Your task to perform on an android device: turn on the 24-hour format for clock Image 0: 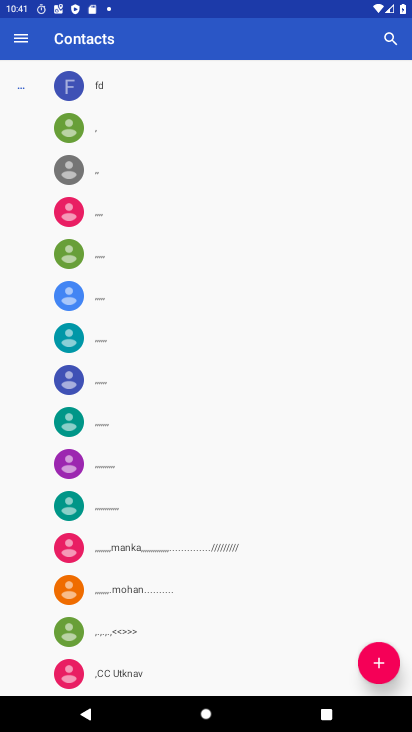
Step 0: press home button
Your task to perform on an android device: turn on the 24-hour format for clock Image 1: 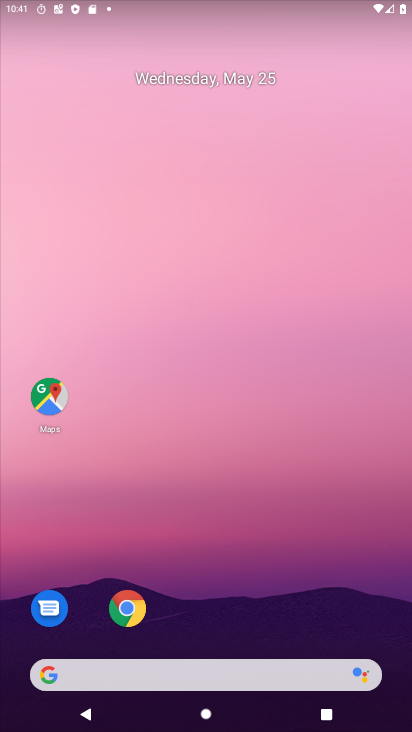
Step 1: drag from (231, 635) to (218, 31)
Your task to perform on an android device: turn on the 24-hour format for clock Image 2: 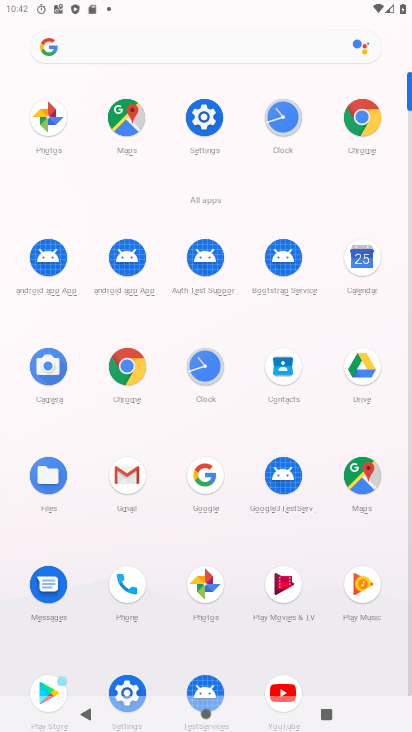
Step 2: click (279, 109)
Your task to perform on an android device: turn on the 24-hour format for clock Image 3: 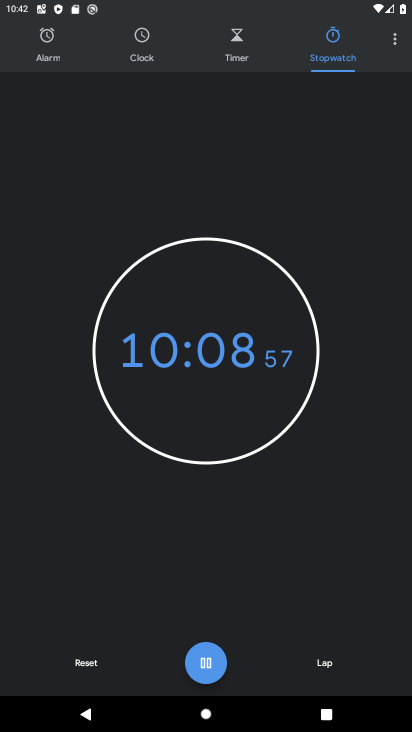
Step 3: click (392, 58)
Your task to perform on an android device: turn on the 24-hour format for clock Image 4: 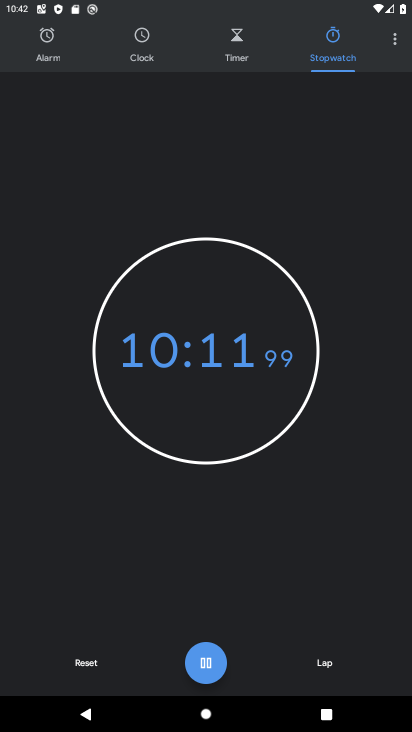
Step 4: click (400, 49)
Your task to perform on an android device: turn on the 24-hour format for clock Image 5: 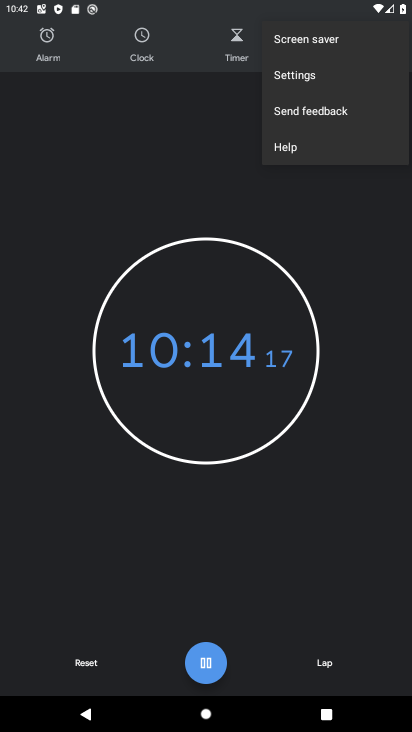
Step 5: click (361, 82)
Your task to perform on an android device: turn on the 24-hour format for clock Image 6: 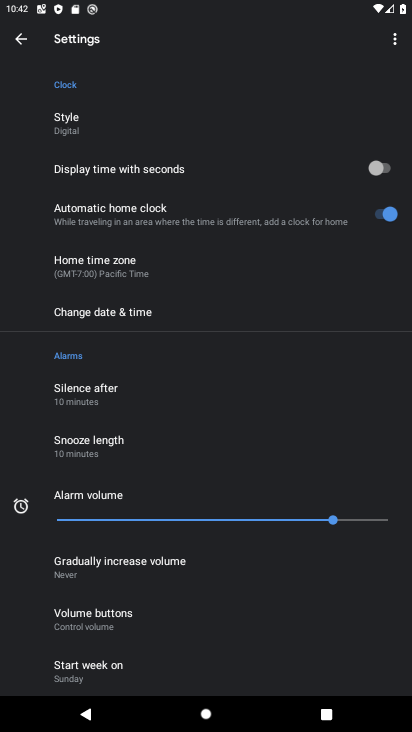
Step 6: click (253, 321)
Your task to perform on an android device: turn on the 24-hour format for clock Image 7: 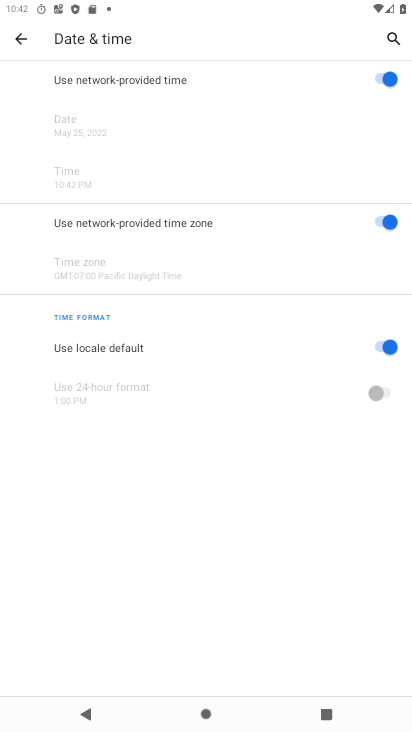
Step 7: click (388, 348)
Your task to perform on an android device: turn on the 24-hour format for clock Image 8: 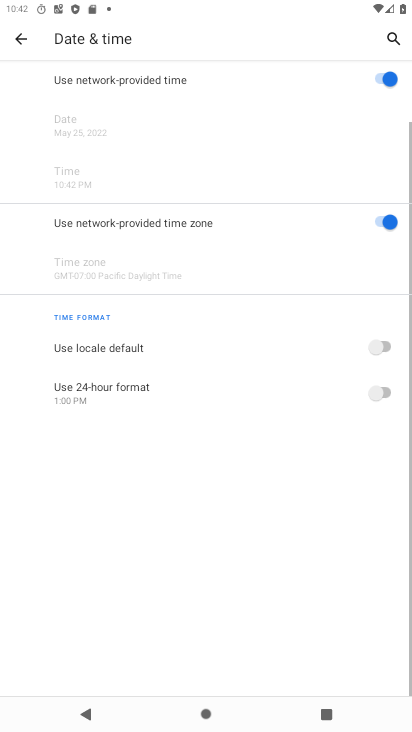
Step 8: click (382, 391)
Your task to perform on an android device: turn on the 24-hour format for clock Image 9: 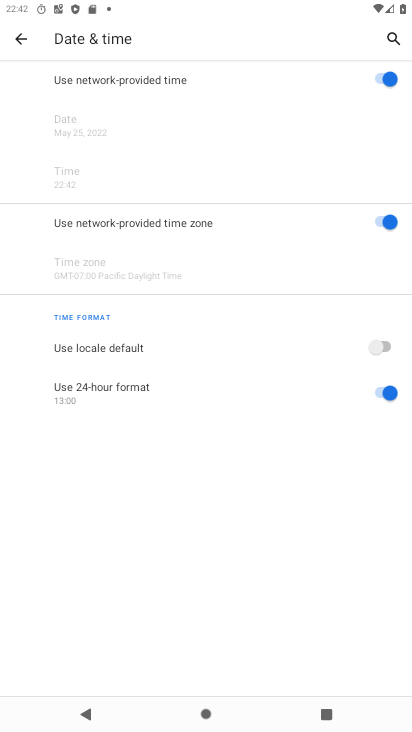
Step 9: task complete